Your task to perform on an android device: What's on my calendar tomorrow? Image 0: 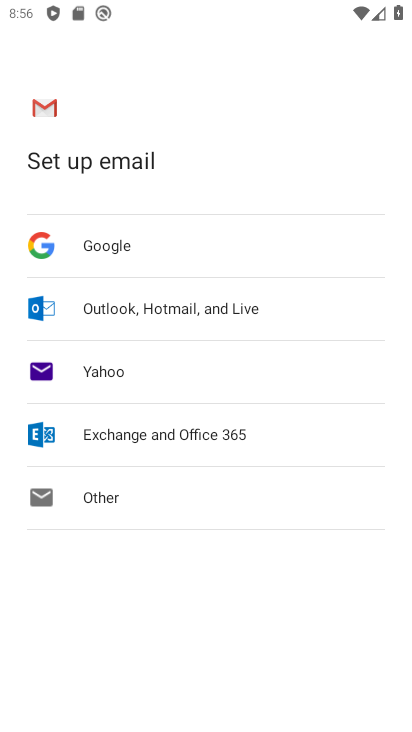
Step 0: press home button
Your task to perform on an android device: What's on my calendar tomorrow? Image 1: 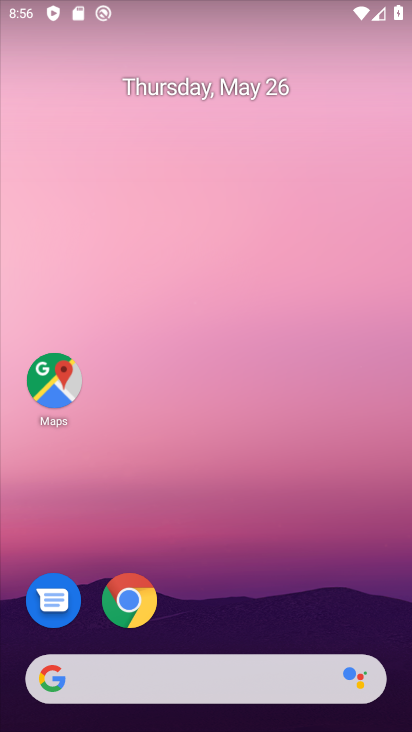
Step 1: click (242, 79)
Your task to perform on an android device: What's on my calendar tomorrow? Image 2: 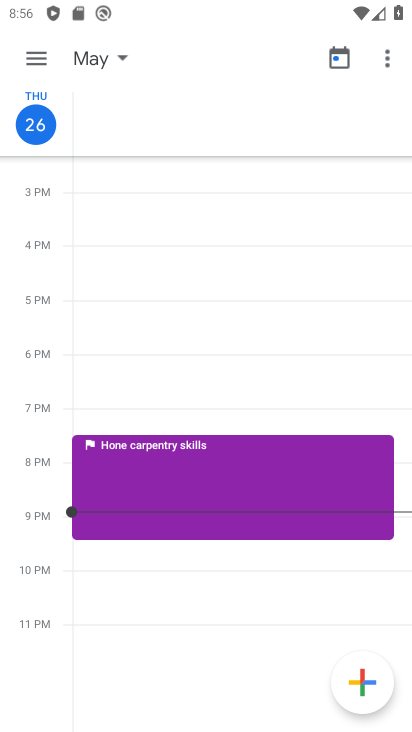
Step 2: click (103, 60)
Your task to perform on an android device: What's on my calendar tomorrow? Image 3: 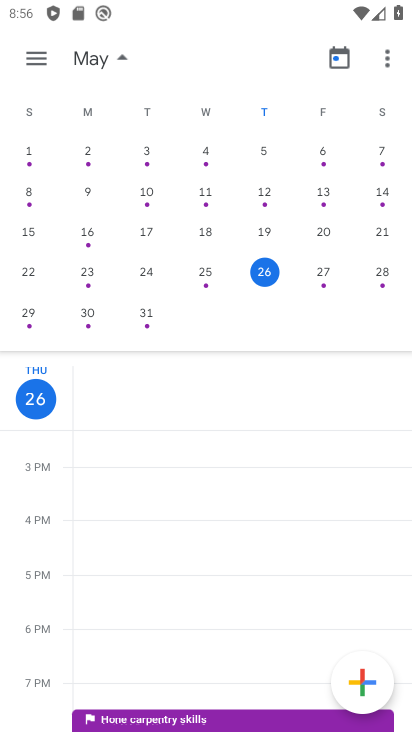
Step 3: click (317, 273)
Your task to perform on an android device: What's on my calendar tomorrow? Image 4: 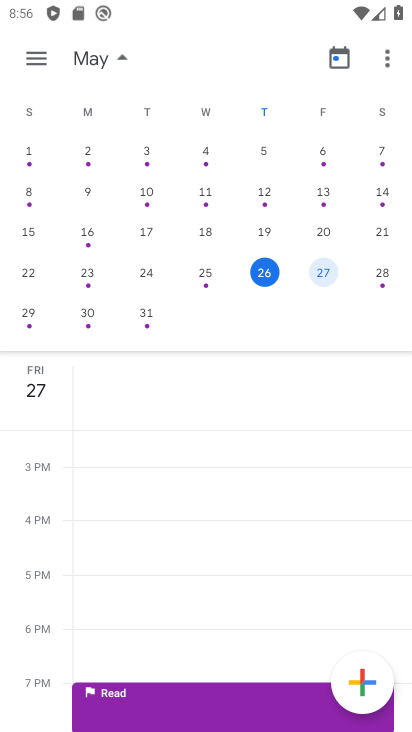
Step 4: click (189, 713)
Your task to perform on an android device: What's on my calendar tomorrow? Image 5: 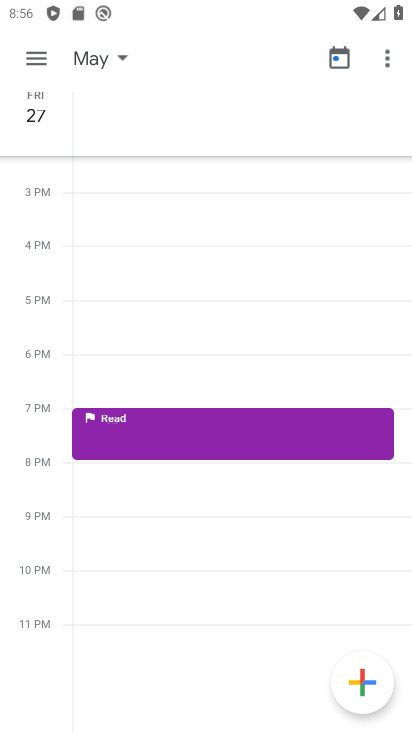
Step 5: task complete